Your task to perform on an android device: toggle airplane mode Image 0: 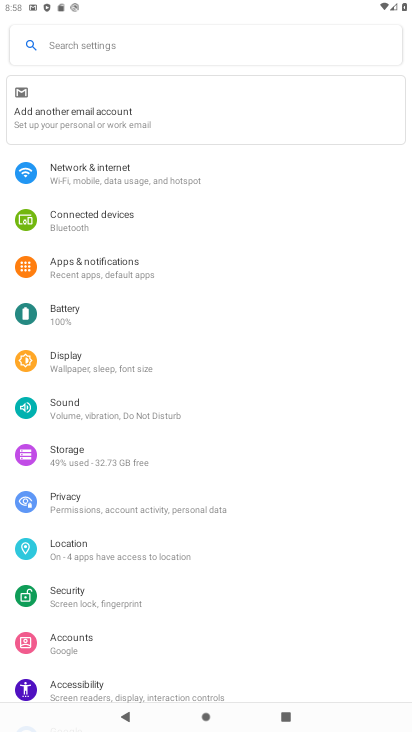
Step 0: click (101, 172)
Your task to perform on an android device: toggle airplane mode Image 1: 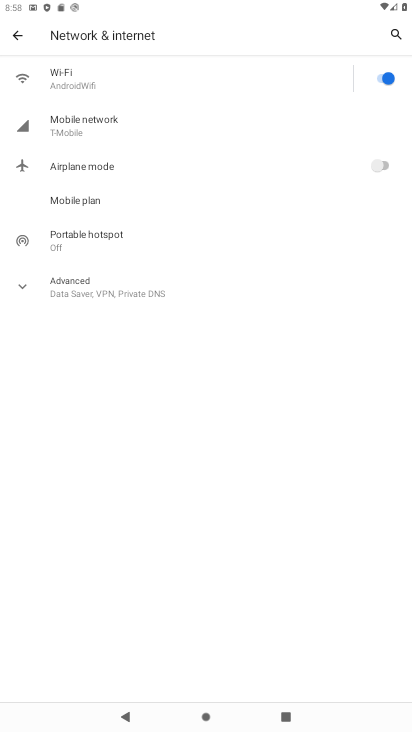
Step 1: click (375, 168)
Your task to perform on an android device: toggle airplane mode Image 2: 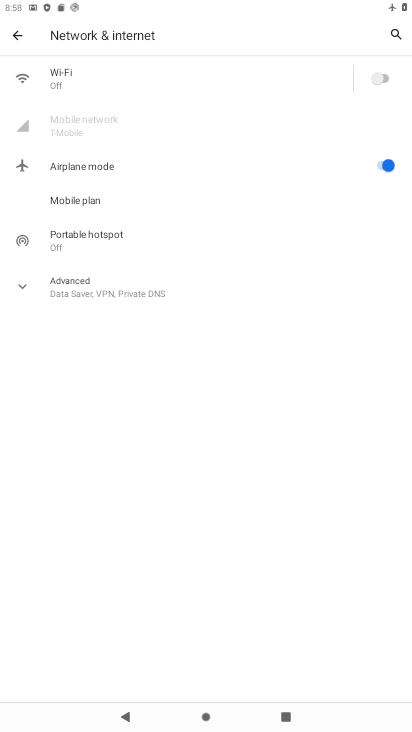
Step 2: task complete